Your task to perform on an android device: toggle translation in the chrome app Image 0: 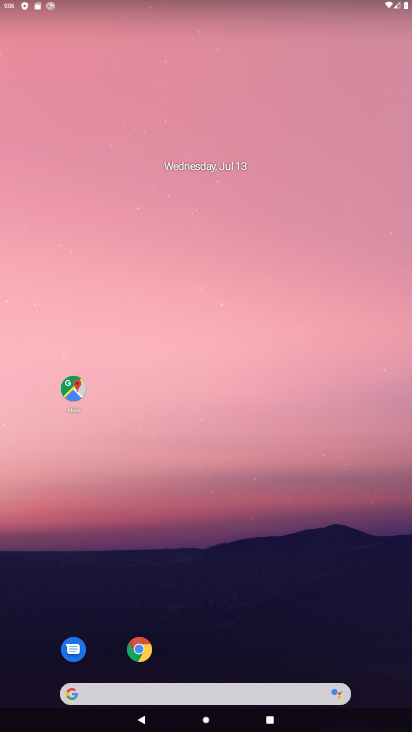
Step 0: drag from (170, 670) to (252, 58)
Your task to perform on an android device: toggle translation in the chrome app Image 1: 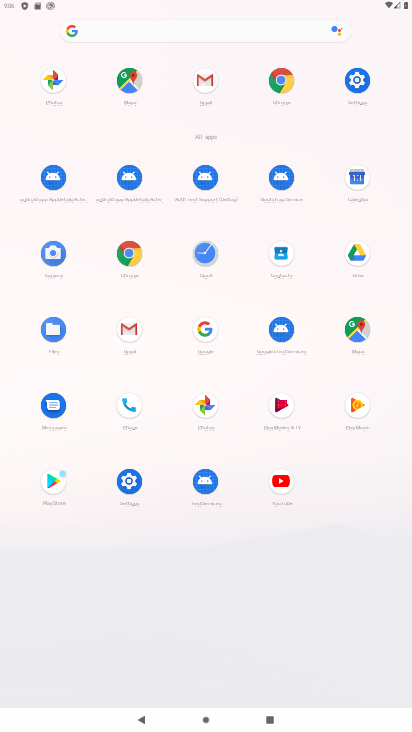
Step 1: click (127, 258)
Your task to perform on an android device: toggle translation in the chrome app Image 2: 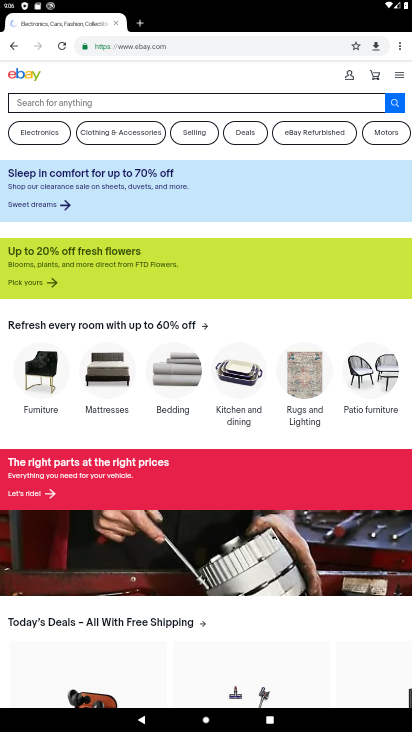
Step 2: drag from (402, 43) to (302, 309)
Your task to perform on an android device: toggle translation in the chrome app Image 3: 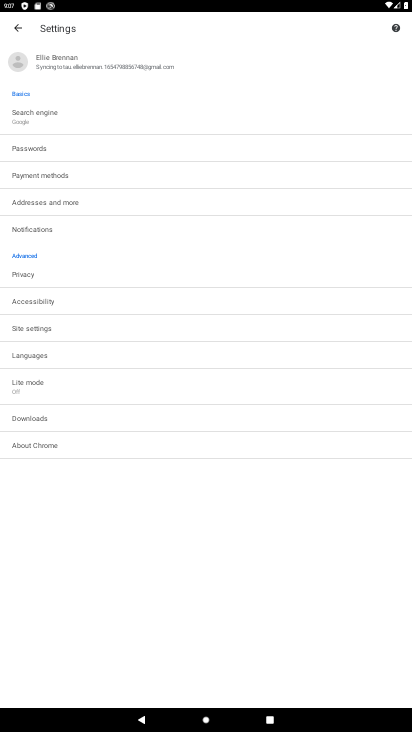
Step 3: click (120, 355)
Your task to perform on an android device: toggle translation in the chrome app Image 4: 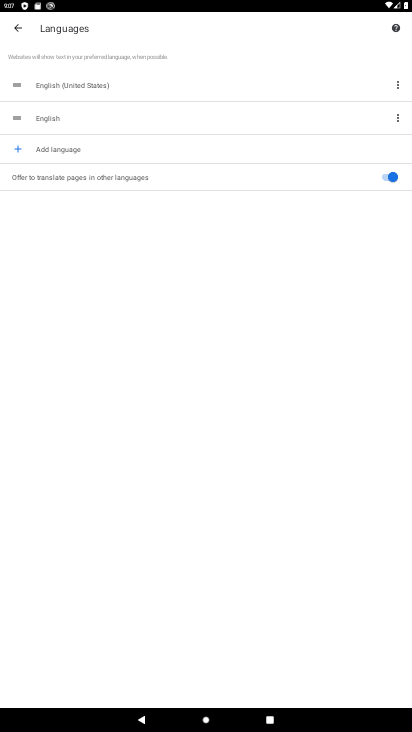
Step 4: click (379, 178)
Your task to perform on an android device: toggle translation in the chrome app Image 5: 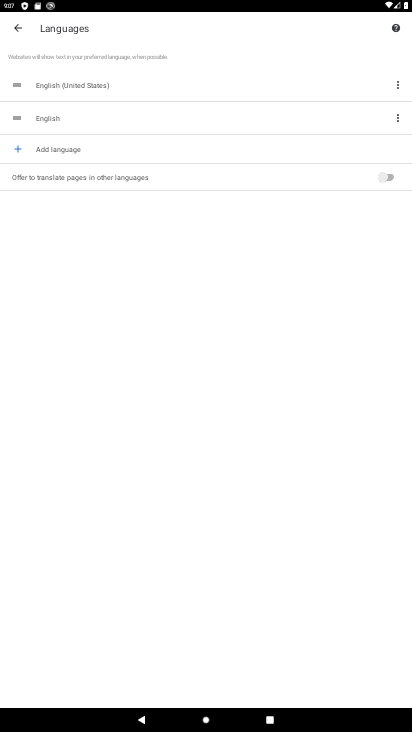
Step 5: task complete